Your task to perform on an android device: Do I have any events this weekend? Image 0: 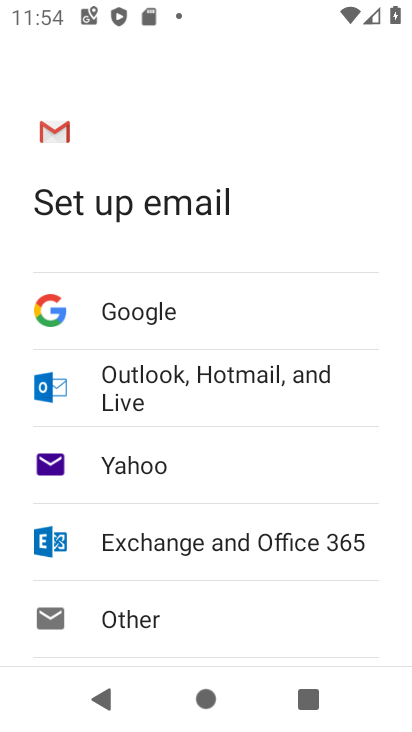
Step 0: press home button
Your task to perform on an android device: Do I have any events this weekend? Image 1: 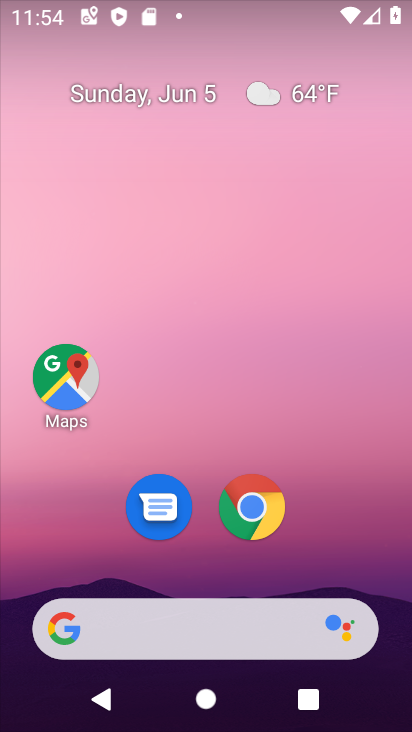
Step 1: drag from (302, 296) to (282, 117)
Your task to perform on an android device: Do I have any events this weekend? Image 2: 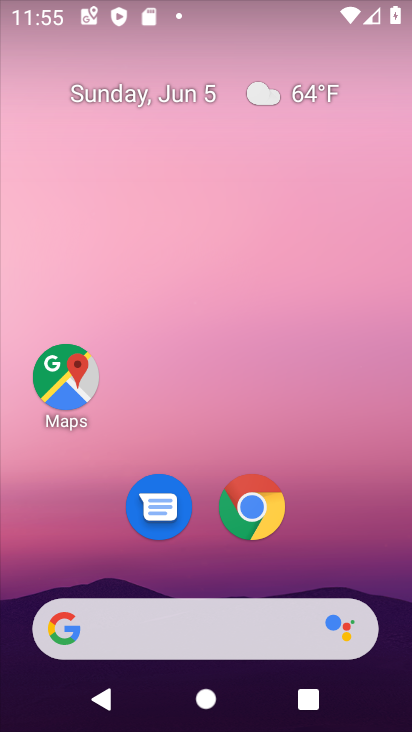
Step 2: click (263, 507)
Your task to perform on an android device: Do I have any events this weekend? Image 3: 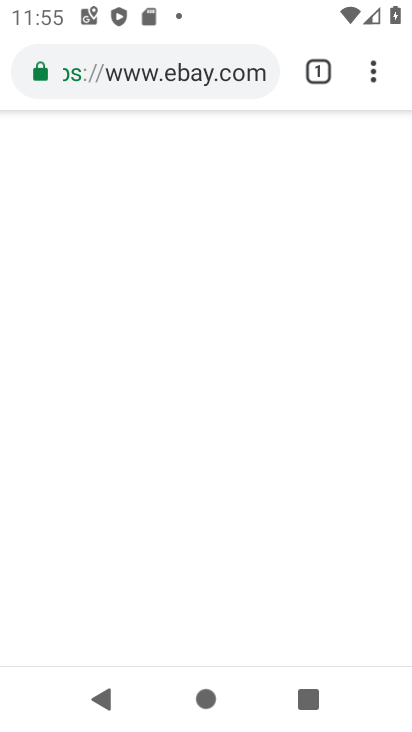
Step 3: click (208, 63)
Your task to perform on an android device: Do I have any events this weekend? Image 4: 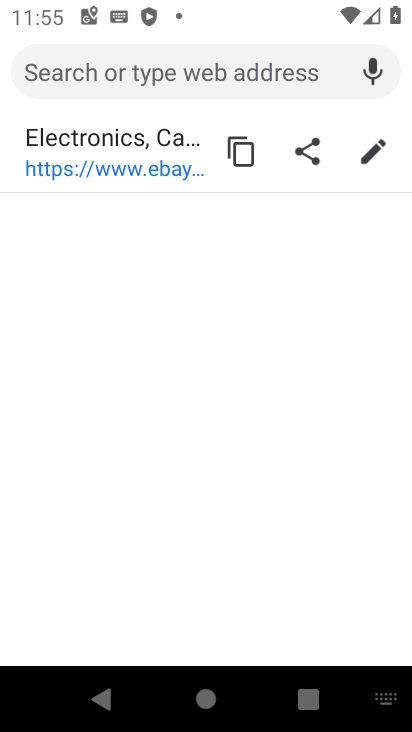
Step 4: press home button
Your task to perform on an android device: Do I have any events this weekend? Image 5: 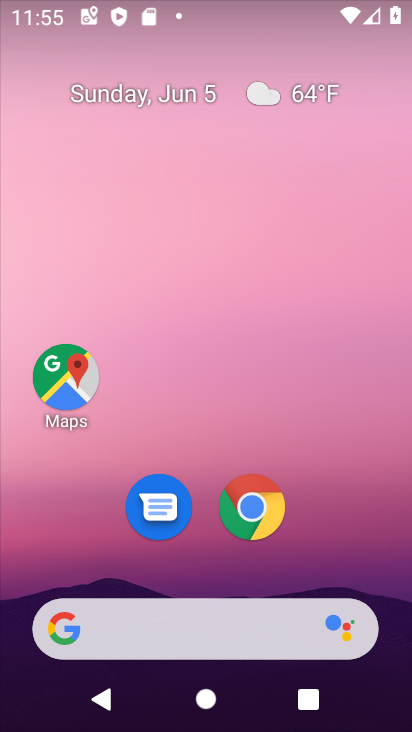
Step 5: drag from (350, 499) to (403, 153)
Your task to perform on an android device: Do I have any events this weekend? Image 6: 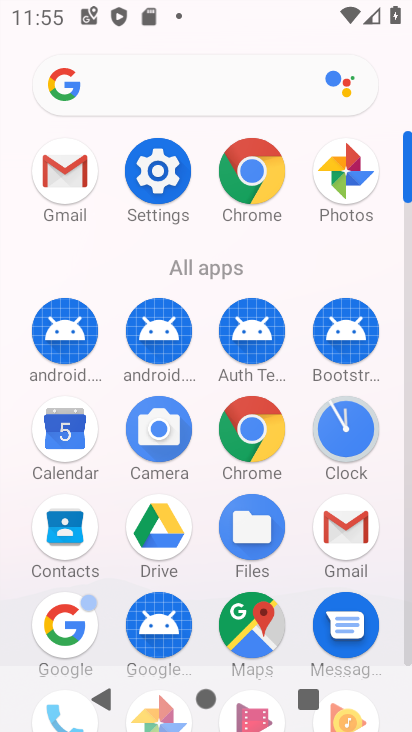
Step 6: click (84, 420)
Your task to perform on an android device: Do I have any events this weekend? Image 7: 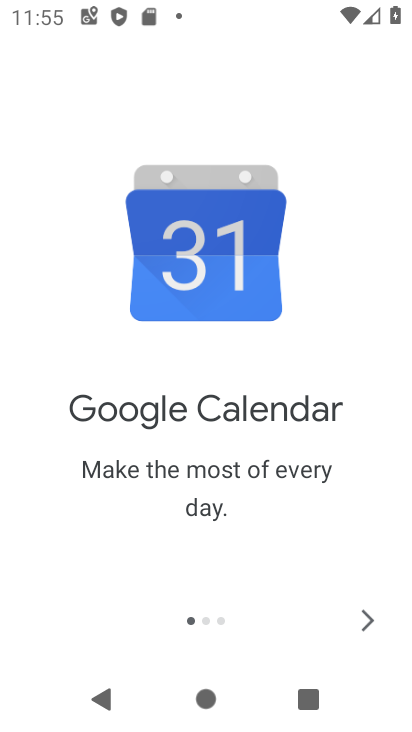
Step 7: click (362, 614)
Your task to perform on an android device: Do I have any events this weekend? Image 8: 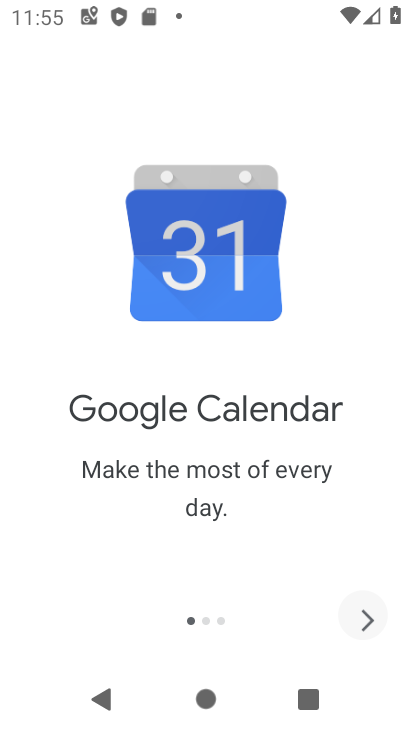
Step 8: click (362, 614)
Your task to perform on an android device: Do I have any events this weekend? Image 9: 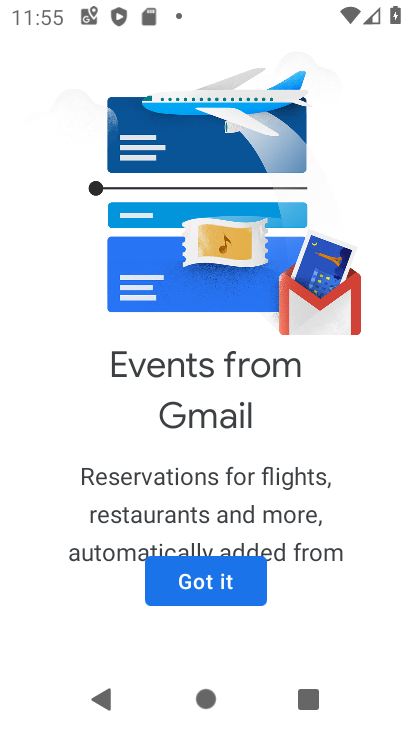
Step 9: click (227, 591)
Your task to perform on an android device: Do I have any events this weekend? Image 10: 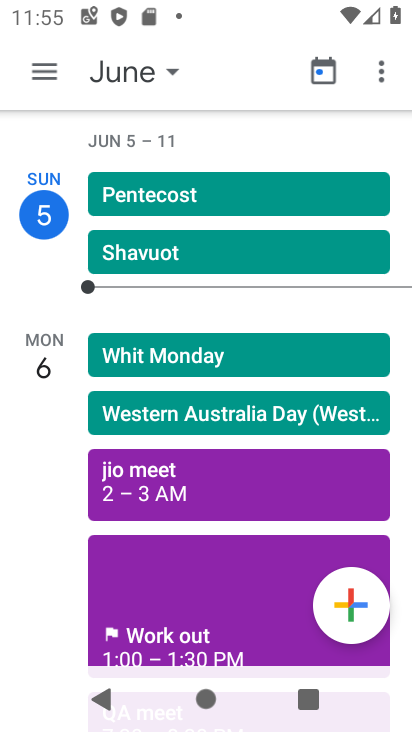
Step 10: click (52, 66)
Your task to perform on an android device: Do I have any events this weekend? Image 11: 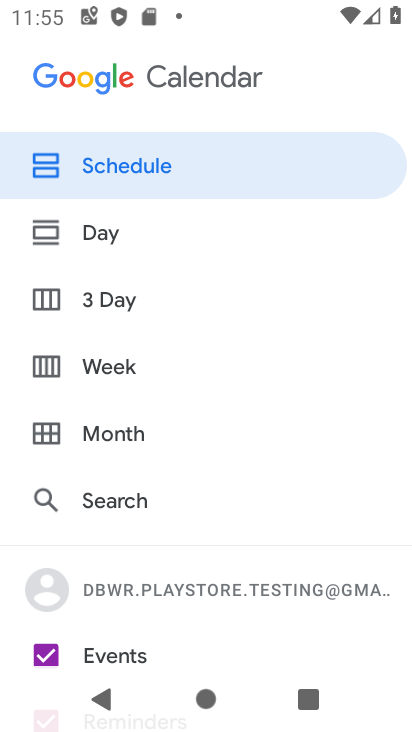
Step 11: click (119, 299)
Your task to perform on an android device: Do I have any events this weekend? Image 12: 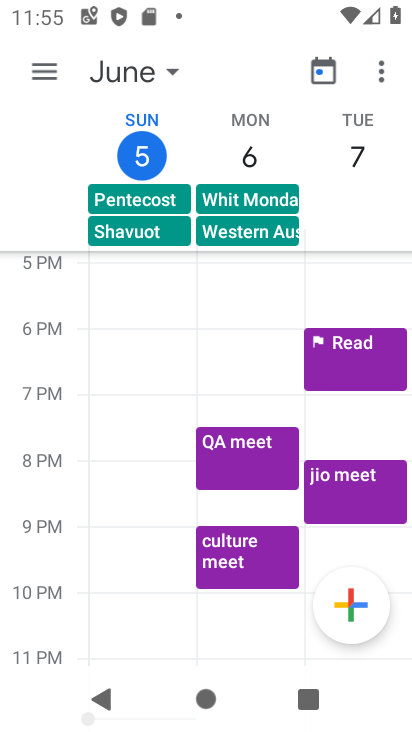
Step 12: task complete